Your task to perform on an android device: turn on bluetooth scan Image 0: 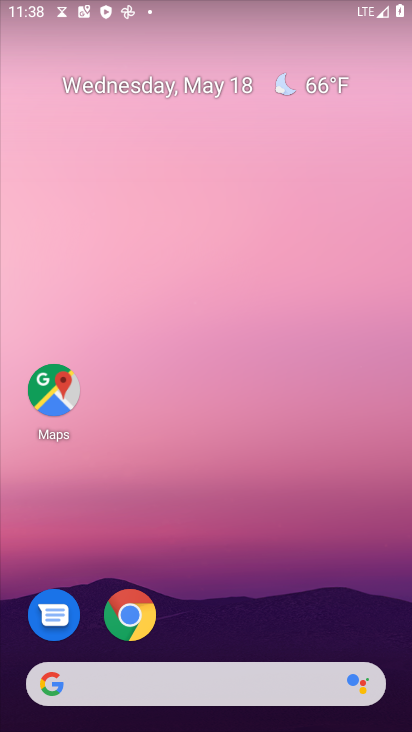
Step 0: drag from (246, 541) to (241, 24)
Your task to perform on an android device: turn on bluetooth scan Image 1: 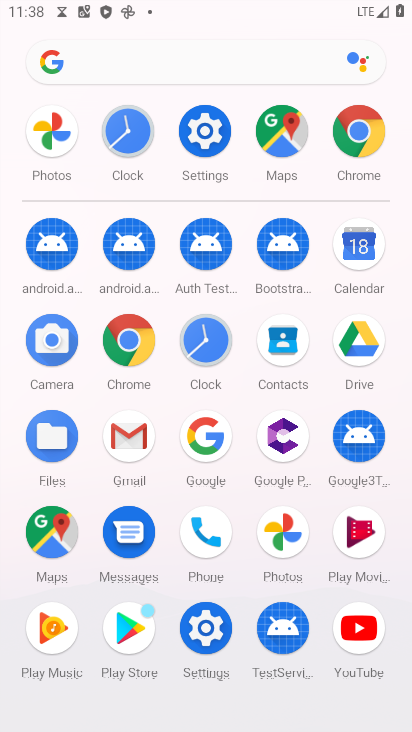
Step 1: drag from (11, 553) to (16, 314)
Your task to perform on an android device: turn on bluetooth scan Image 2: 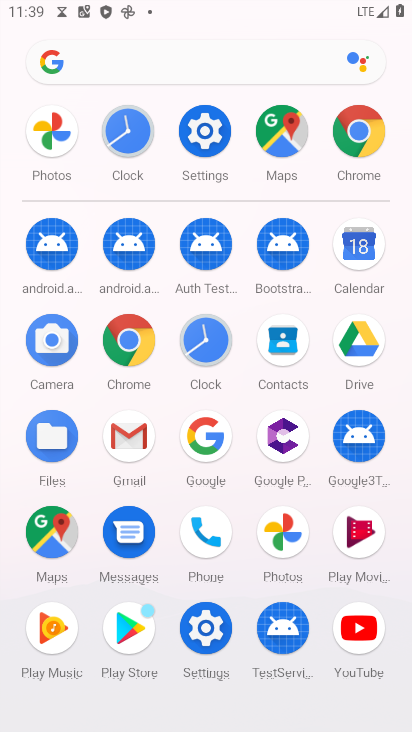
Step 2: click (199, 618)
Your task to perform on an android device: turn on bluetooth scan Image 3: 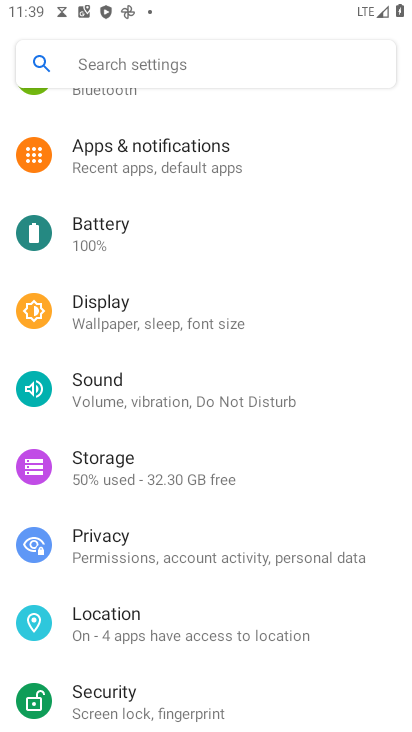
Step 3: drag from (243, 543) to (284, 173)
Your task to perform on an android device: turn on bluetooth scan Image 4: 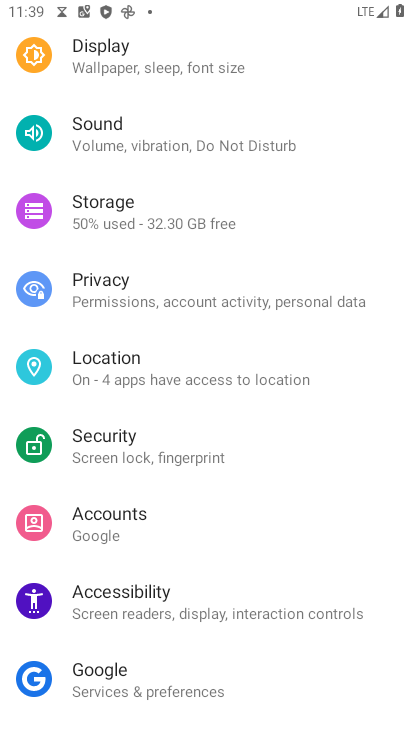
Step 4: drag from (252, 121) to (300, 588)
Your task to perform on an android device: turn on bluetooth scan Image 5: 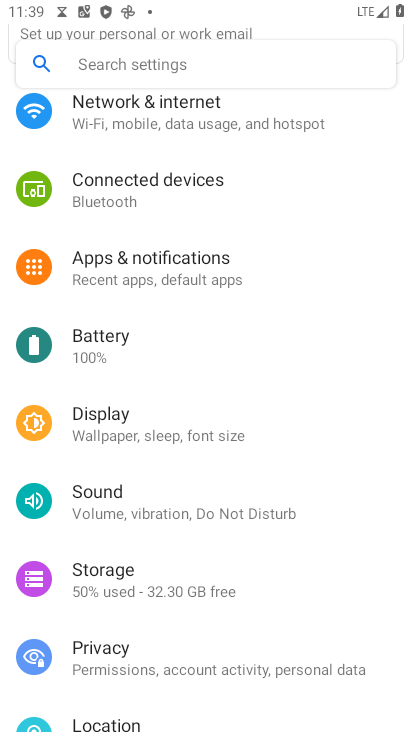
Step 5: drag from (180, 628) to (210, 282)
Your task to perform on an android device: turn on bluetooth scan Image 6: 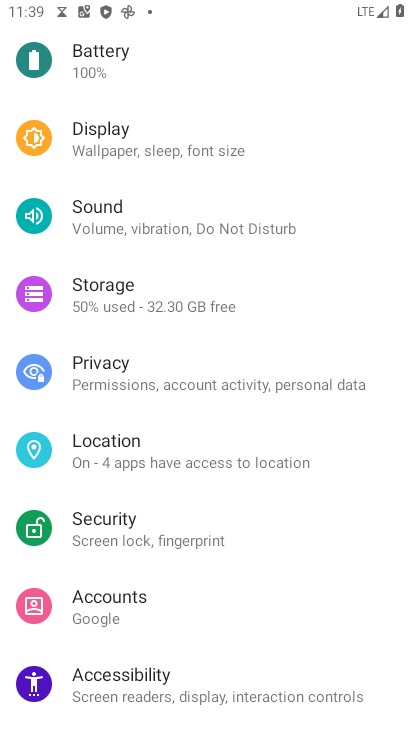
Step 6: click (132, 453)
Your task to perform on an android device: turn on bluetooth scan Image 7: 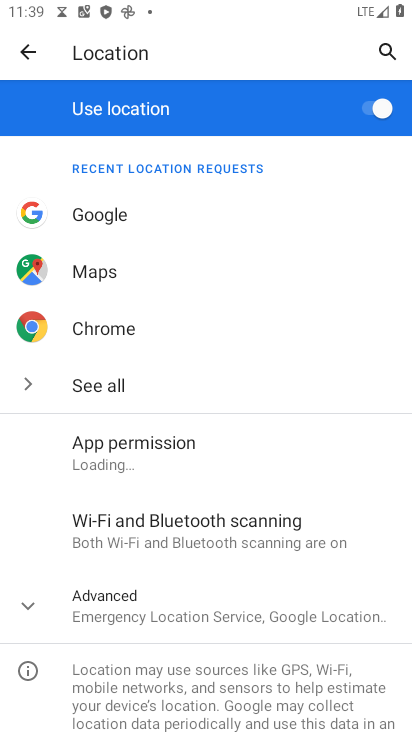
Step 7: click (73, 608)
Your task to perform on an android device: turn on bluetooth scan Image 8: 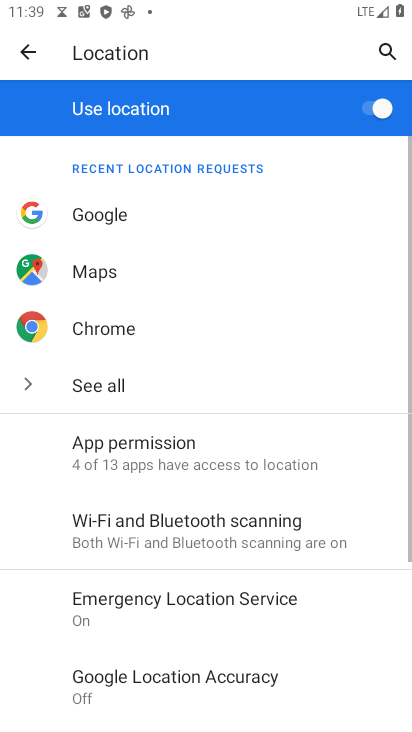
Step 8: click (223, 520)
Your task to perform on an android device: turn on bluetooth scan Image 9: 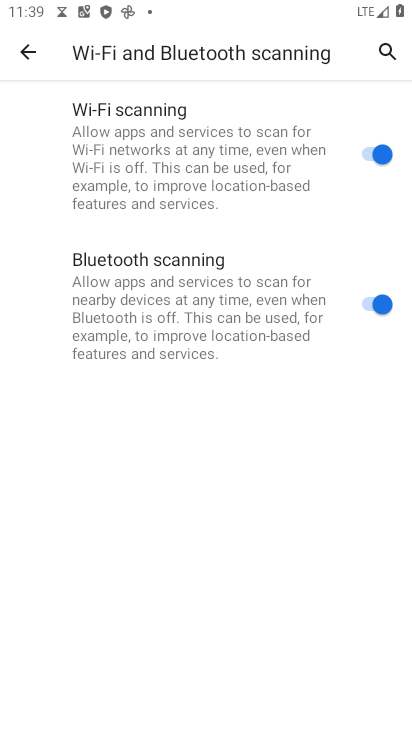
Step 9: task complete